Your task to perform on an android device: turn pop-ups on in chrome Image 0: 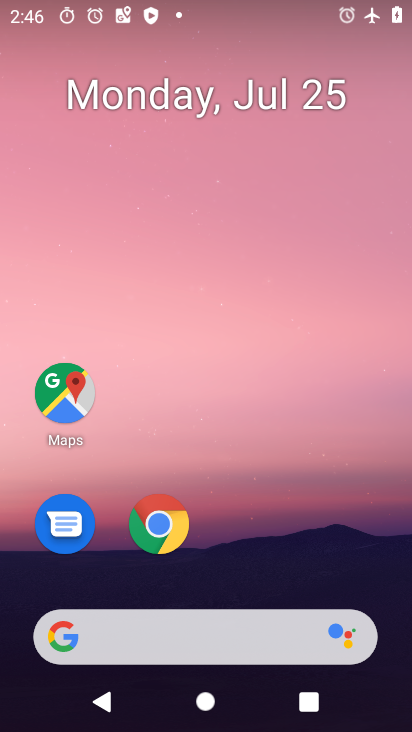
Step 0: press home button
Your task to perform on an android device: turn pop-ups on in chrome Image 1: 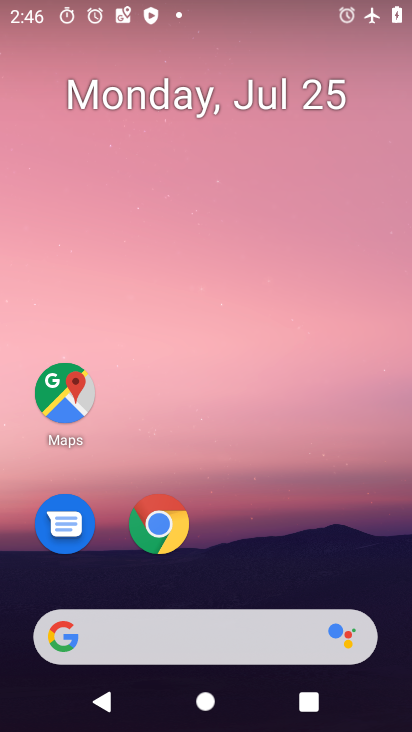
Step 1: drag from (224, 574) to (300, 36)
Your task to perform on an android device: turn pop-ups on in chrome Image 2: 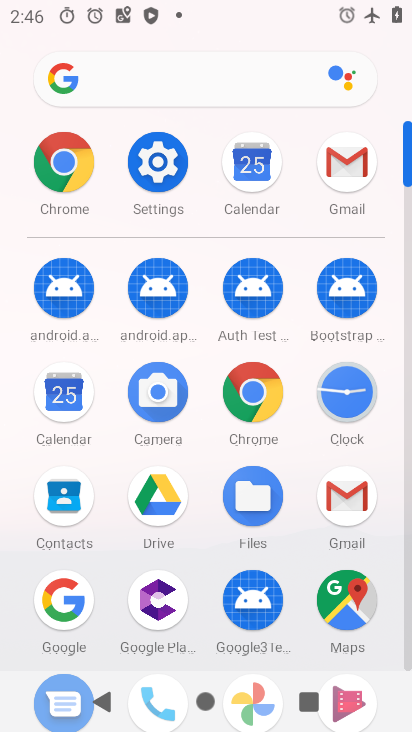
Step 2: click (63, 170)
Your task to perform on an android device: turn pop-ups on in chrome Image 3: 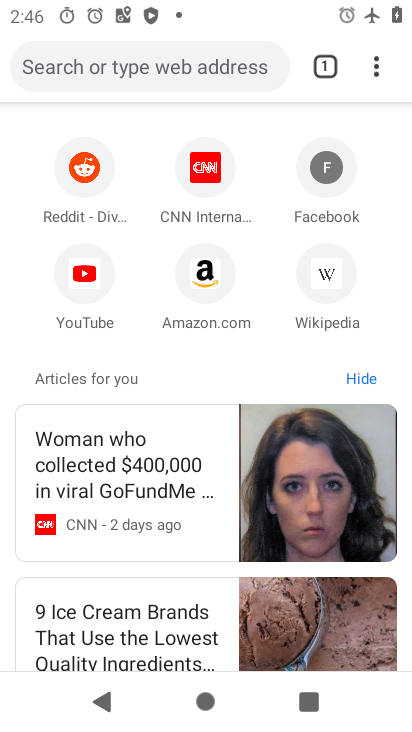
Step 3: drag from (375, 65) to (153, 556)
Your task to perform on an android device: turn pop-ups on in chrome Image 4: 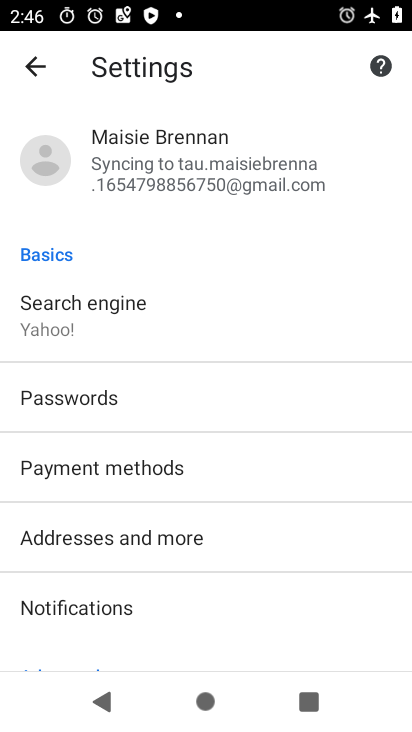
Step 4: drag from (288, 583) to (297, 127)
Your task to perform on an android device: turn pop-ups on in chrome Image 5: 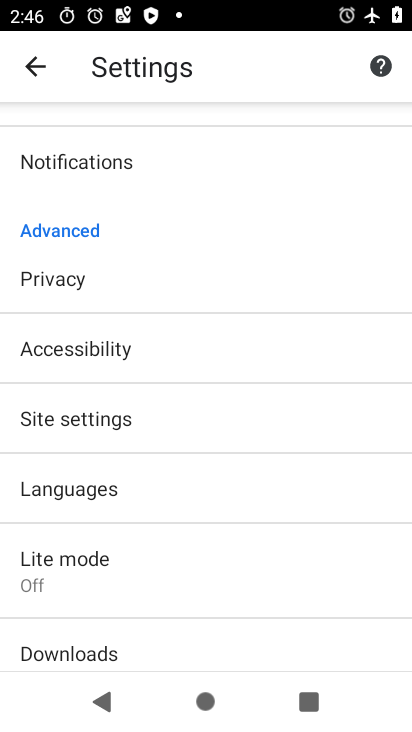
Step 5: click (74, 423)
Your task to perform on an android device: turn pop-ups on in chrome Image 6: 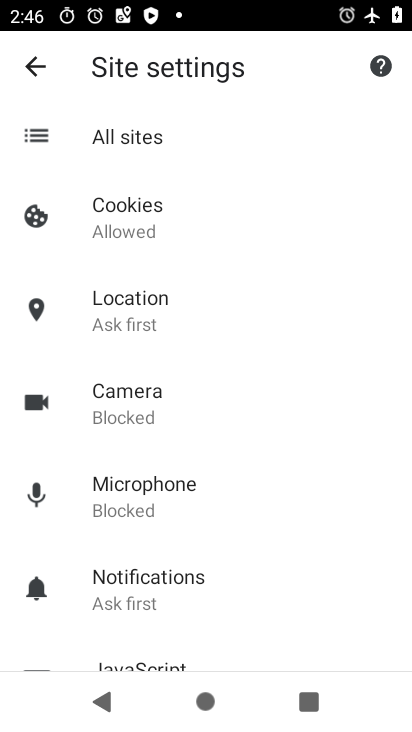
Step 6: drag from (323, 567) to (342, 165)
Your task to perform on an android device: turn pop-ups on in chrome Image 7: 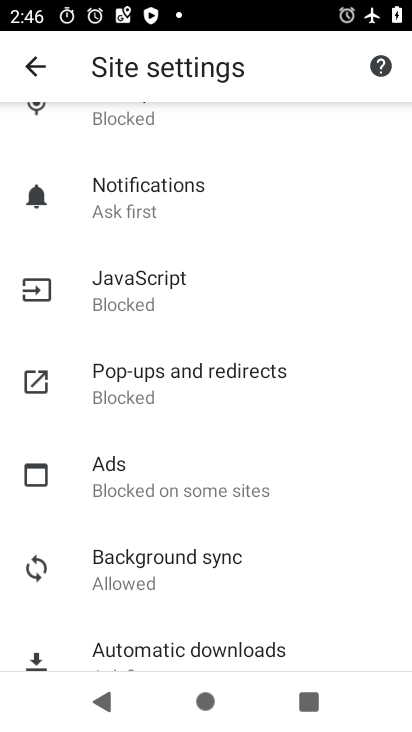
Step 7: click (133, 375)
Your task to perform on an android device: turn pop-ups on in chrome Image 8: 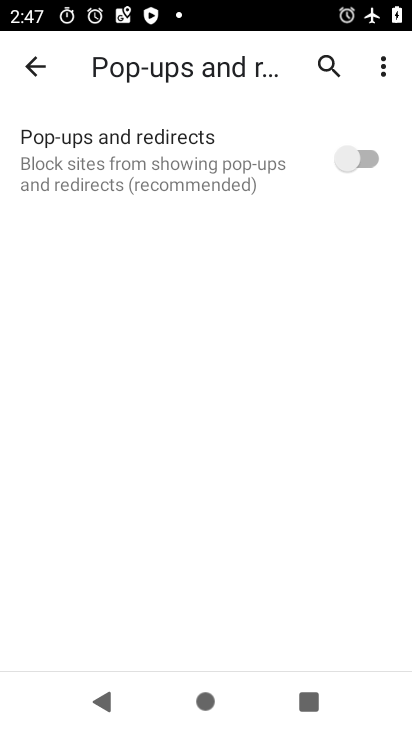
Step 8: click (349, 163)
Your task to perform on an android device: turn pop-ups on in chrome Image 9: 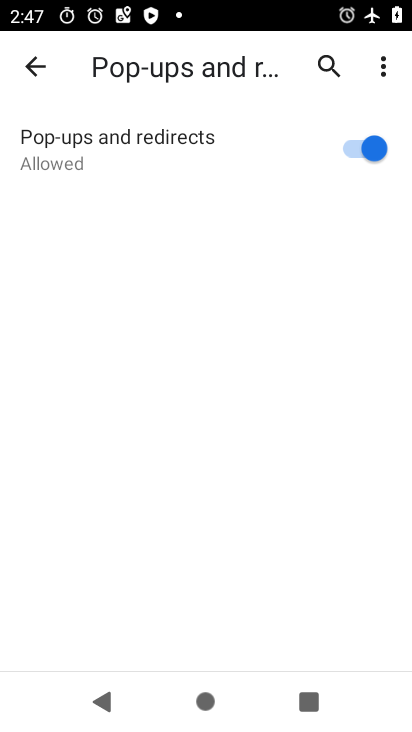
Step 9: task complete